Your task to perform on an android device: Open internet settings Image 0: 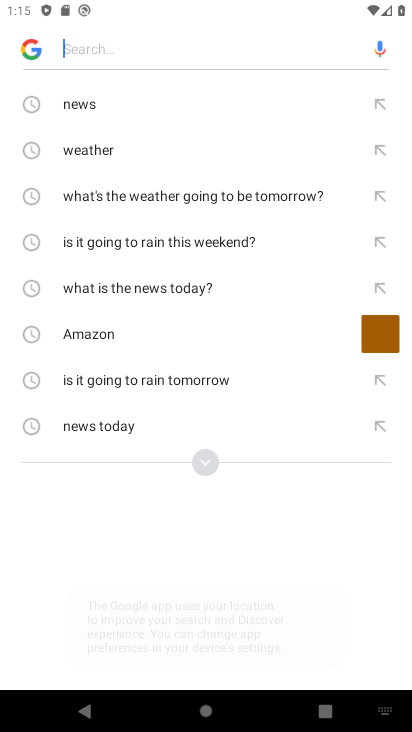
Step 0: press back button
Your task to perform on an android device: Open internet settings Image 1: 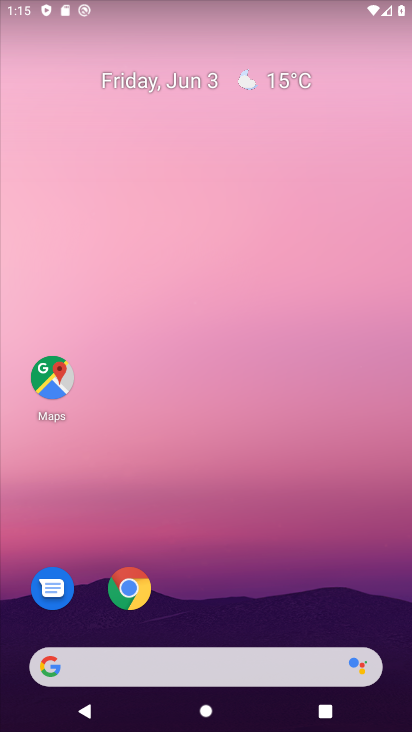
Step 1: drag from (327, 528) to (257, 29)
Your task to perform on an android device: Open internet settings Image 2: 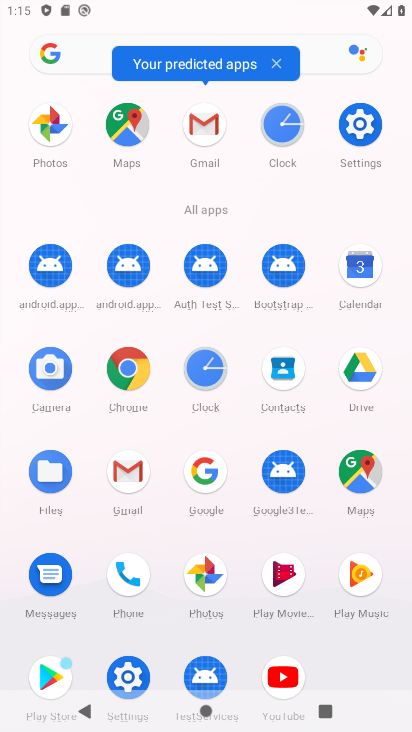
Step 2: drag from (9, 552) to (24, 255)
Your task to perform on an android device: Open internet settings Image 3: 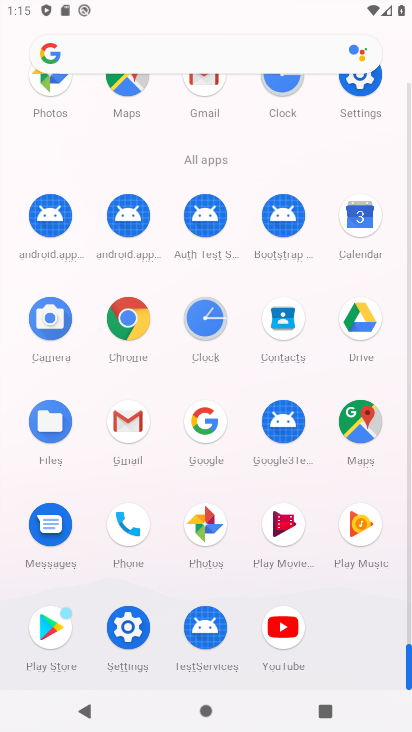
Step 3: click (126, 625)
Your task to perform on an android device: Open internet settings Image 4: 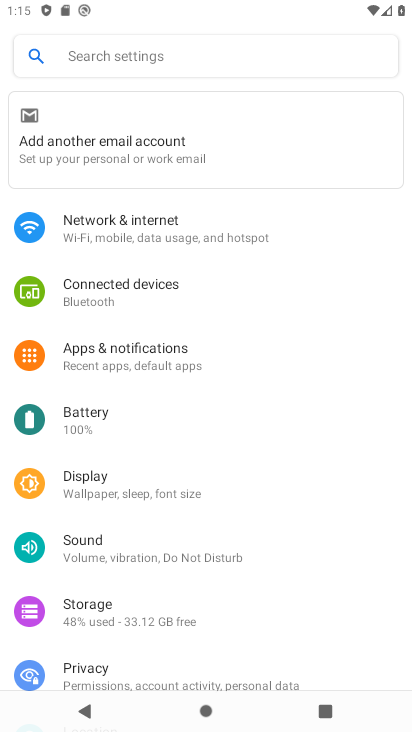
Step 4: click (132, 232)
Your task to perform on an android device: Open internet settings Image 5: 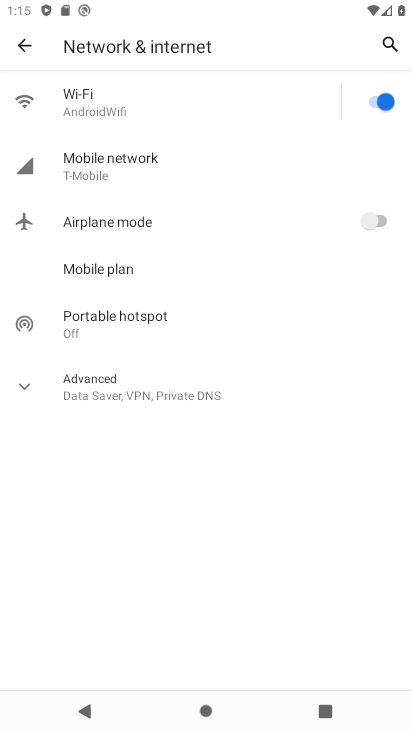
Step 5: click (27, 381)
Your task to perform on an android device: Open internet settings Image 6: 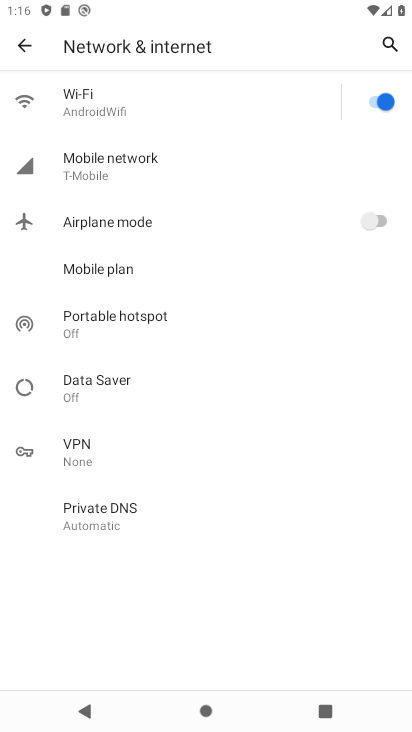
Step 6: task complete